Your task to perform on an android device: open device folders in google photos Image 0: 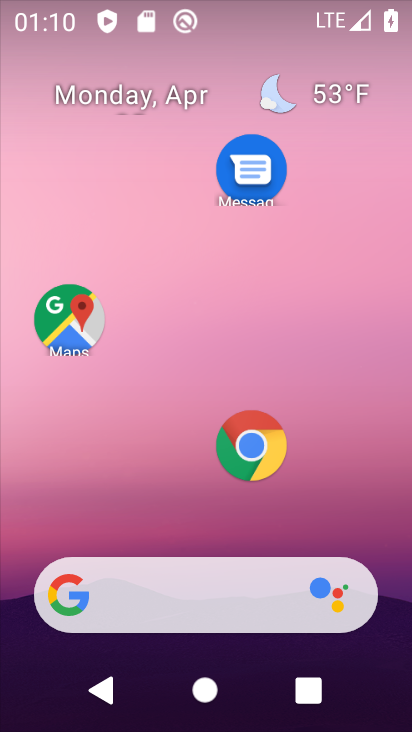
Step 0: drag from (188, 517) to (214, 6)
Your task to perform on an android device: open device folders in google photos Image 1: 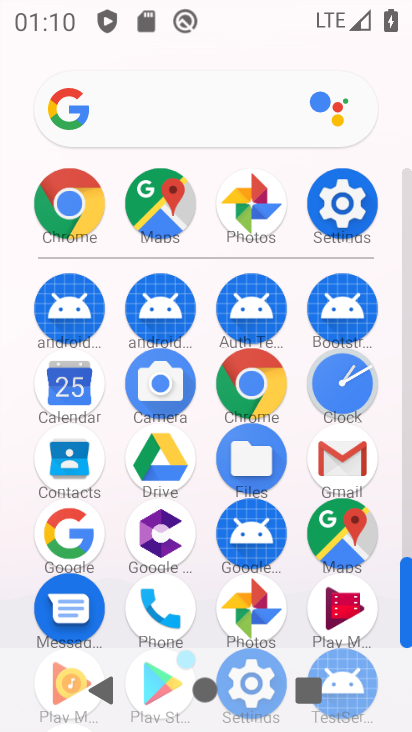
Step 1: click (252, 602)
Your task to perform on an android device: open device folders in google photos Image 2: 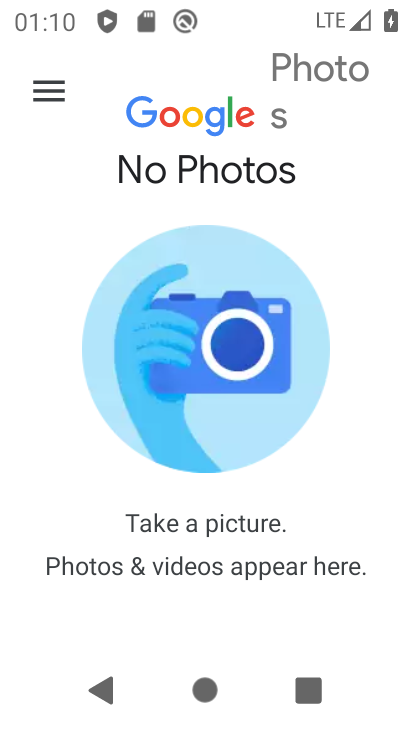
Step 2: click (50, 84)
Your task to perform on an android device: open device folders in google photos Image 3: 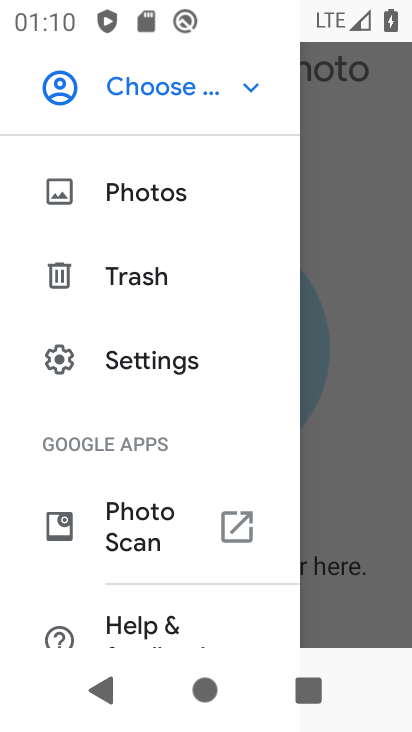
Step 3: drag from (131, 548) to (182, 201)
Your task to perform on an android device: open device folders in google photos Image 4: 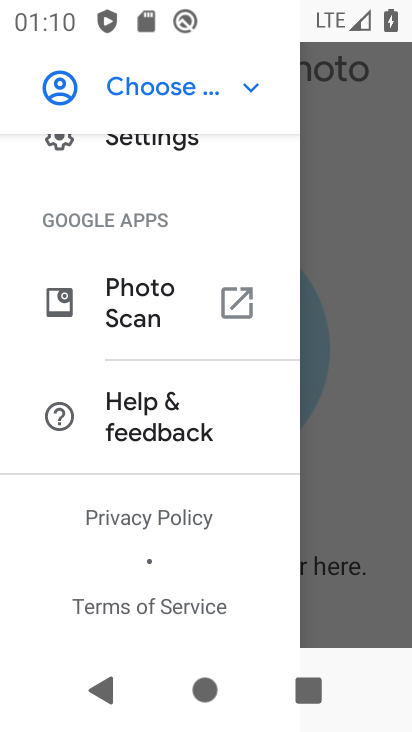
Step 4: click (141, 123)
Your task to perform on an android device: open device folders in google photos Image 5: 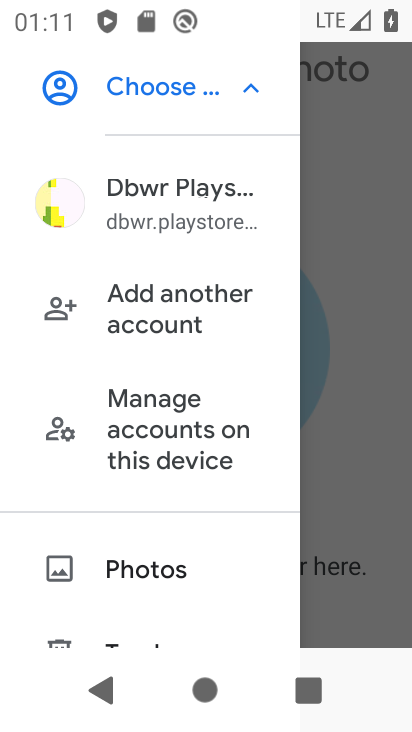
Step 5: task complete